Your task to perform on an android device: star an email in the gmail app Image 0: 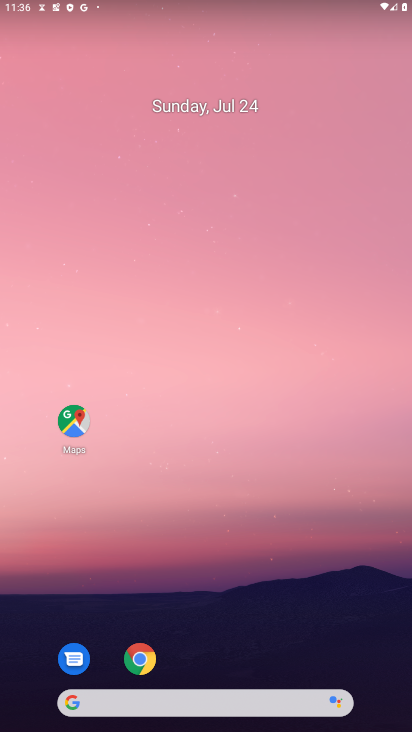
Step 0: click (206, 325)
Your task to perform on an android device: star an email in the gmail app Image 1: 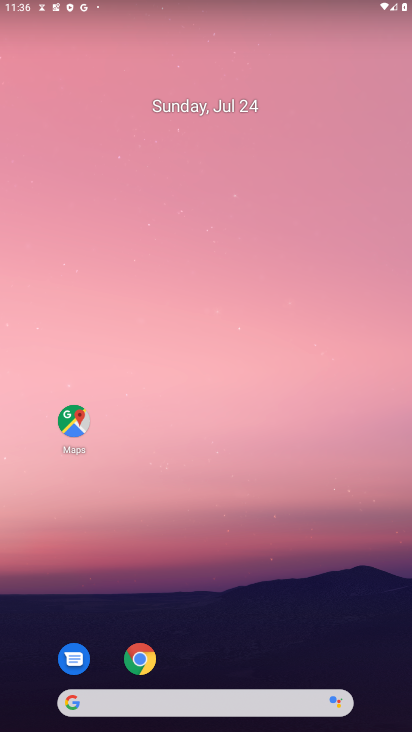
Step 1: drag from (160, 655) to (146, 336)
Your task to perform on an android device: star an email in the gmail app Image 2: 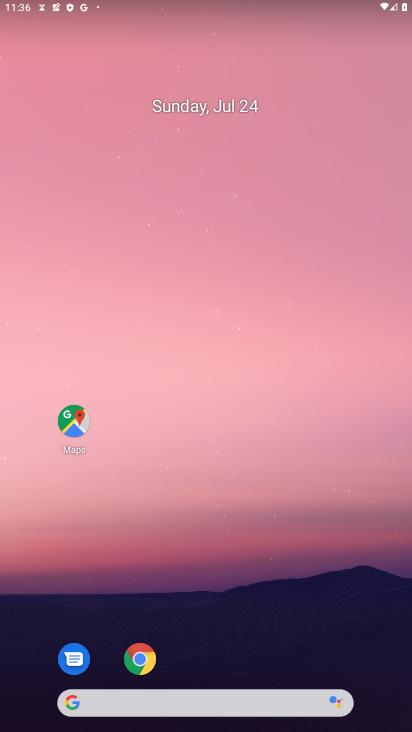
Step 2: drag from (280, 647) to (322, 130)
Your task to perform on an android device: star an email in the gmail app Image 3: 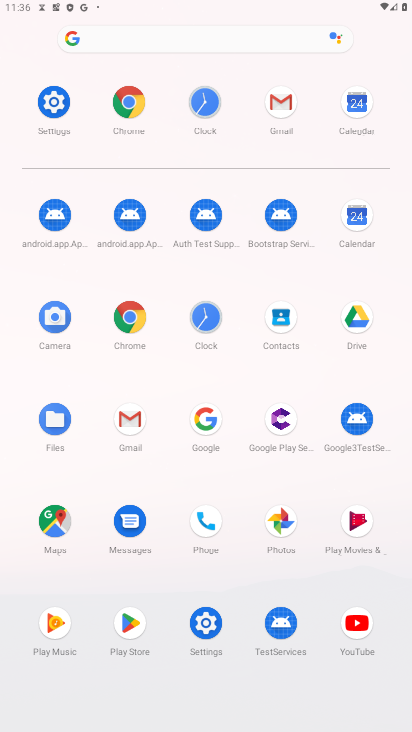
Step 3: click (277, 103)
Your task to perform on an android device: star an email in the gmail app Image 4: 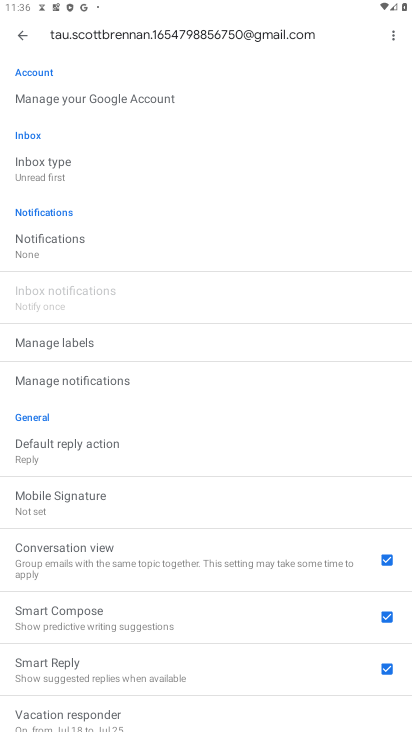
Step 4: click (18, 35)
Your task to perform on an android device: star an email in the gmail app Image 5: 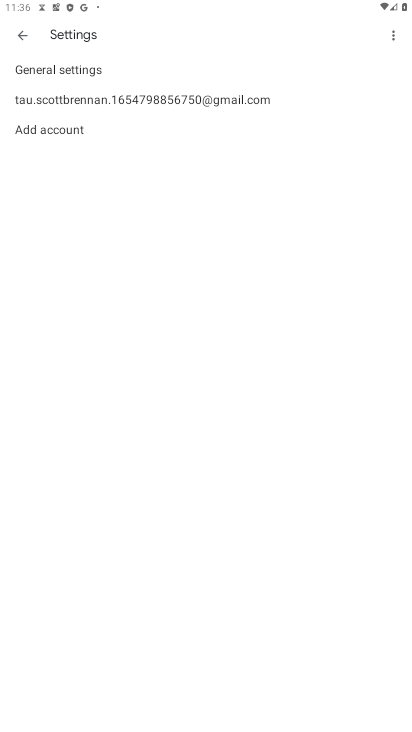
Step 5: click (34, 43)
Your task to perform on an android device: star an email in the gmail app Image 6: 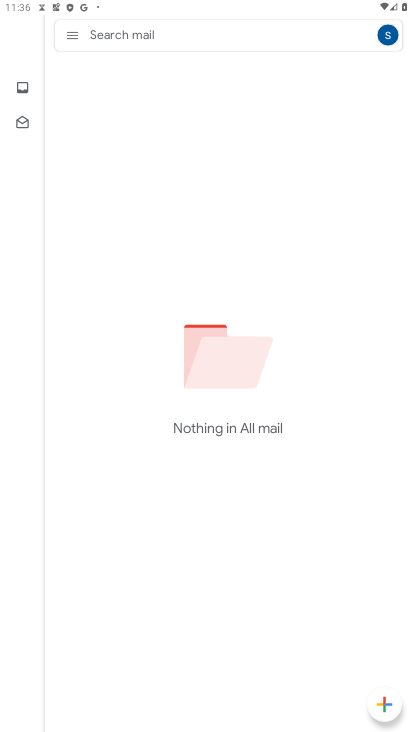
Step 6: click (72, 30)
Your task to perform on an android device: star an email in the gmail app Image 7: 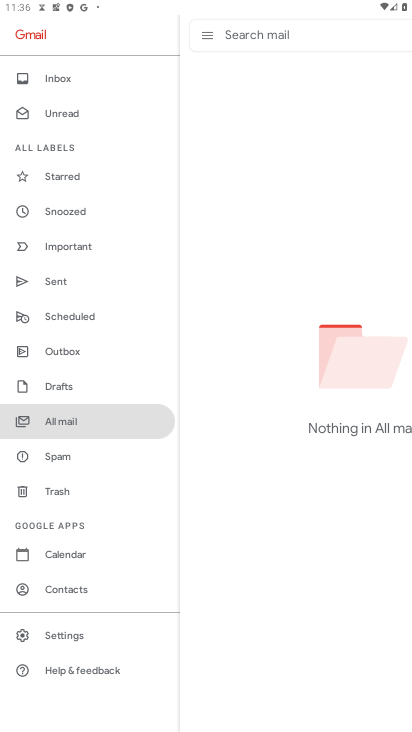
Step 7: click (60, 172)
Your task to perform on an android device: star an email in the gmail app Image 8: 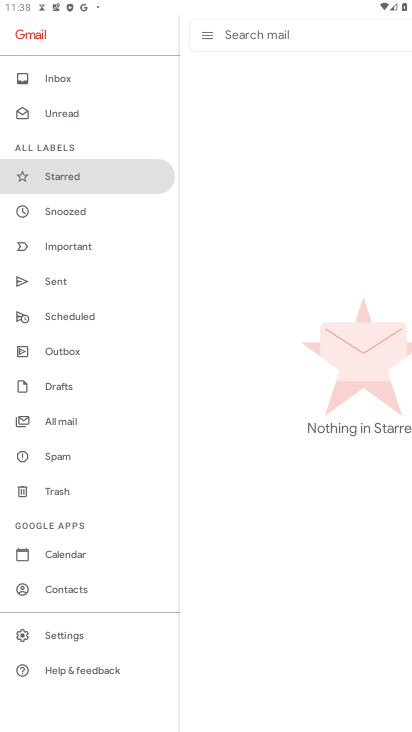
Step 8: task complete